Your task to perform on an android device: Open network settings Image 0: 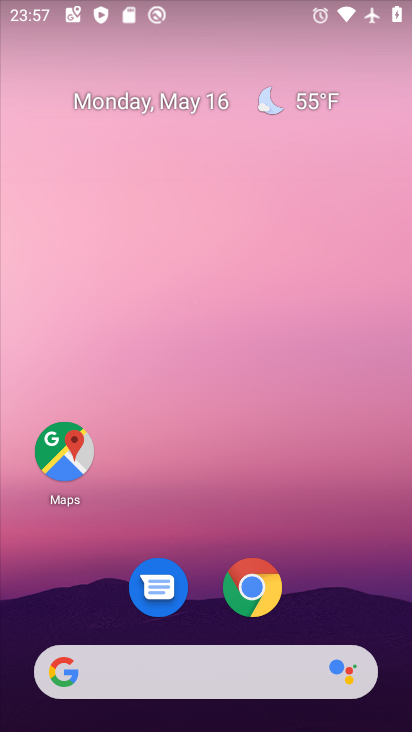
Step 0: drag from (330, 551) to (236, 6)
Your task to perform on an android device: Open network settings Image 1: 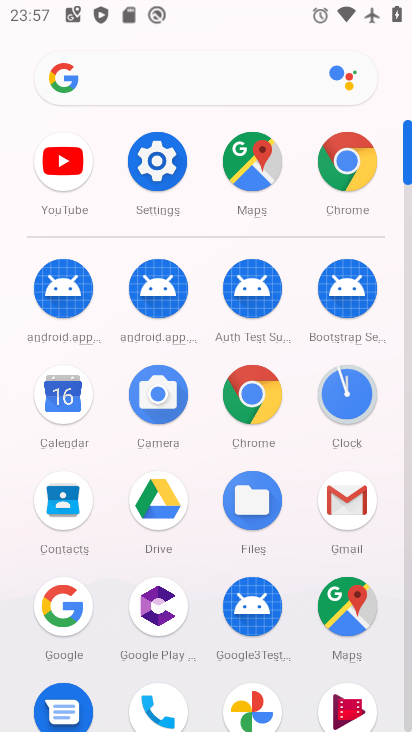
Step 1: drag from (10, 605) to (17, 219)
Your task to perform on an android device: Open network settings Image 2: 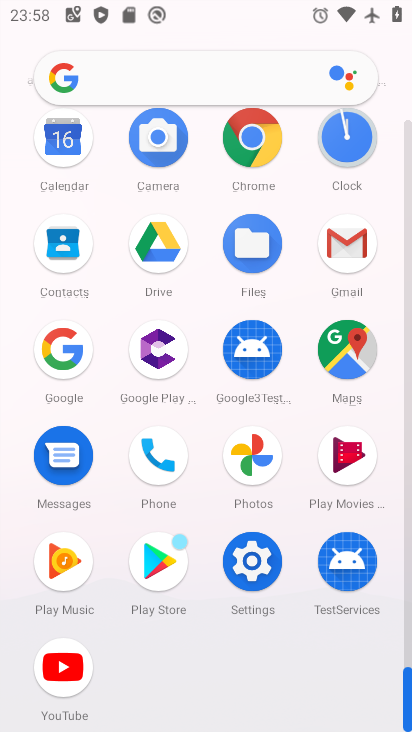
Step 2: click (250, 557)
Your task to perform on an android device: Open network settings Image 3: 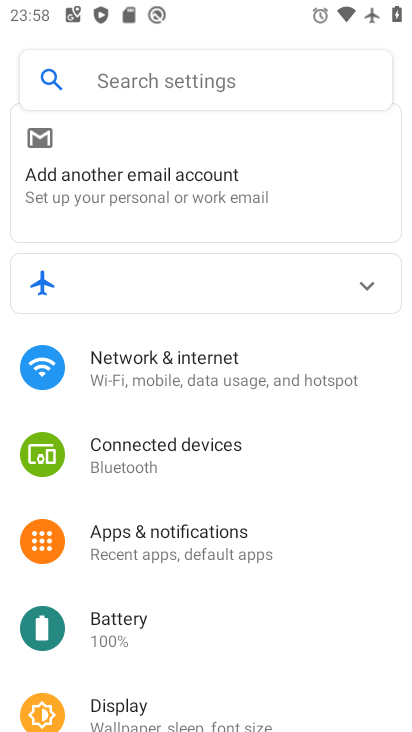
Step 3: click (220, 352)
Your task to perform on an android device: Open network settings Image 4: 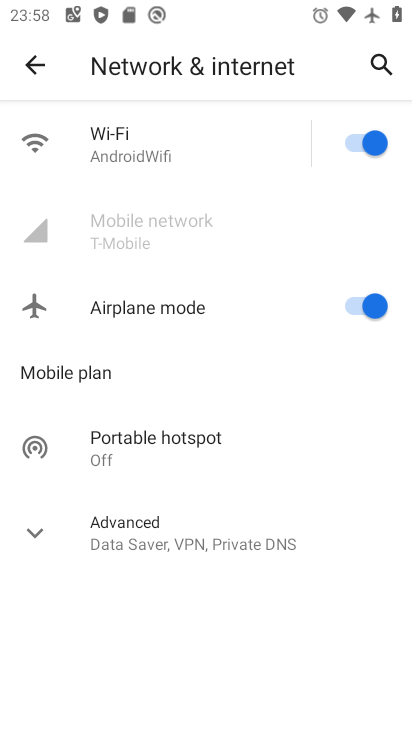
Step 4: click (45, 533)
Your task to perform on an android device: Open network settings Image 5: 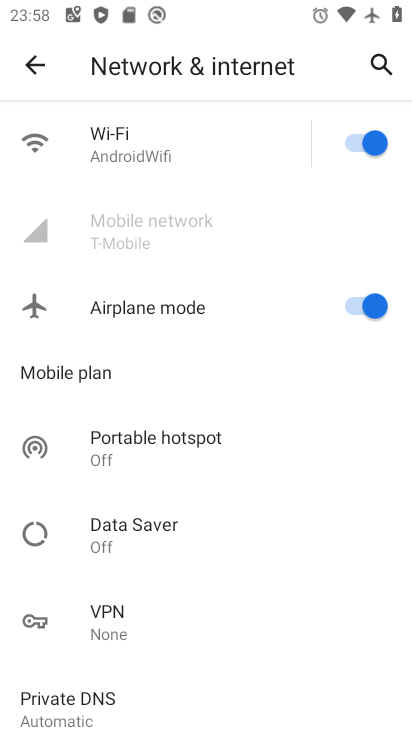
Step 5: task complete